Your task to perform on an android device: star an email in the gmail app Image 0: 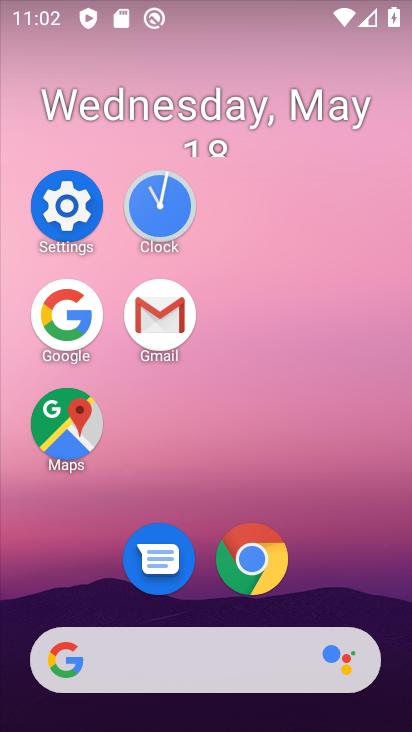
Step 0: click (176, 314)
Your task to perform on an android device: star an email in the gmail app Image 1: 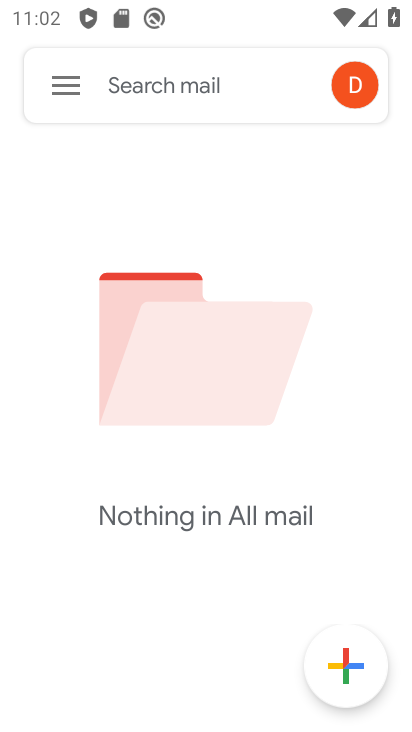
Step 1: click (46, 88)
Your task to perform on an android device: star an email in the gmail app Image 2: 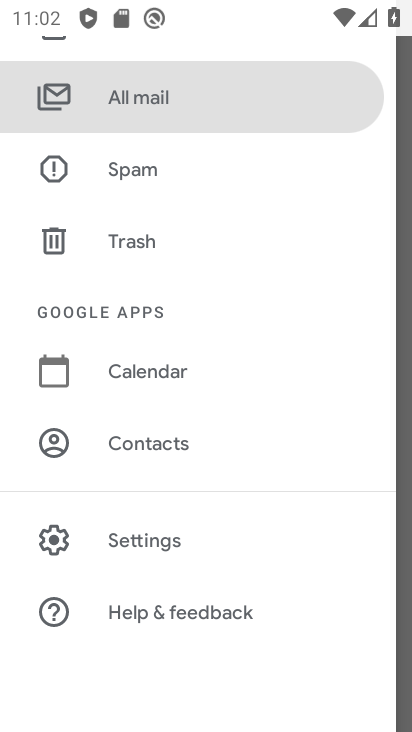
Step 2: click (190, 96)
Your task to perform on an android device: star an email in the gmail app Image 3: 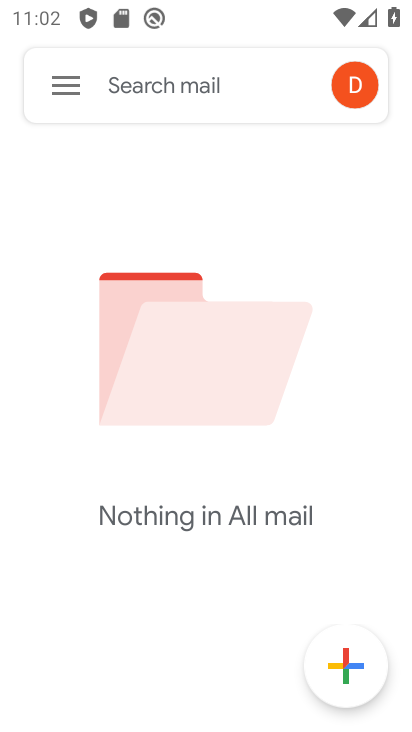
Step 3: task complete